Your task to perform on an android device: turn off notifications in google photos Image 0: 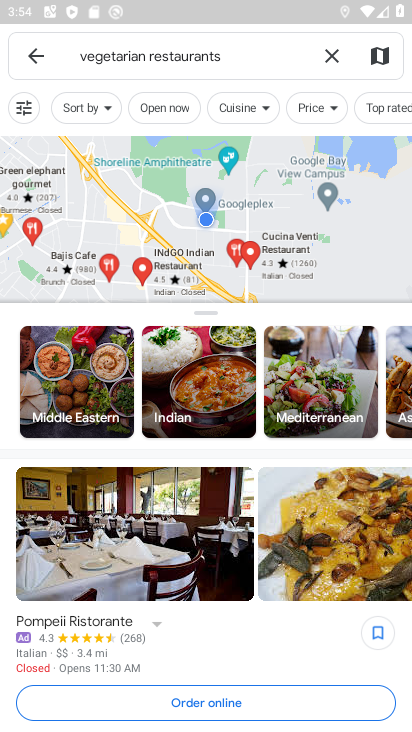
Step 0: press home button
Your task to perform on an android device: turn off notifications in google photos Image 1: 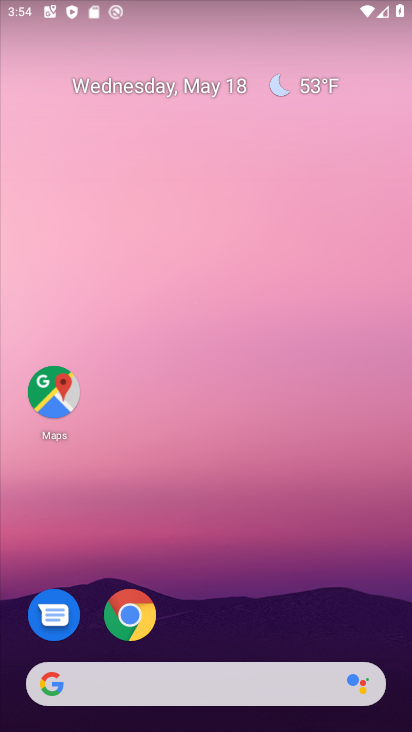
Step 1: drag from (251, 579) to (273, 104)
Your task to perform on an android device: turn off notifications in google photos Image 2: 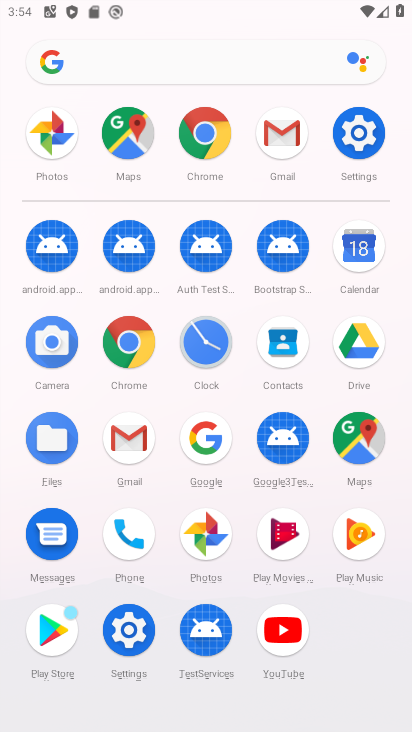
Step 2: click (206, 535)
Your task to perform on an android device: turn off notifications in google photos Image 3: 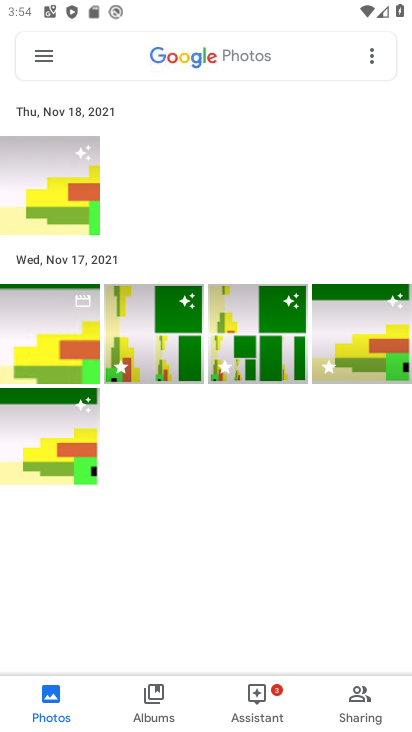
Step 3: click (41, 57)
Your task to perform on an android device: turn off notifications in google photos Image 4: 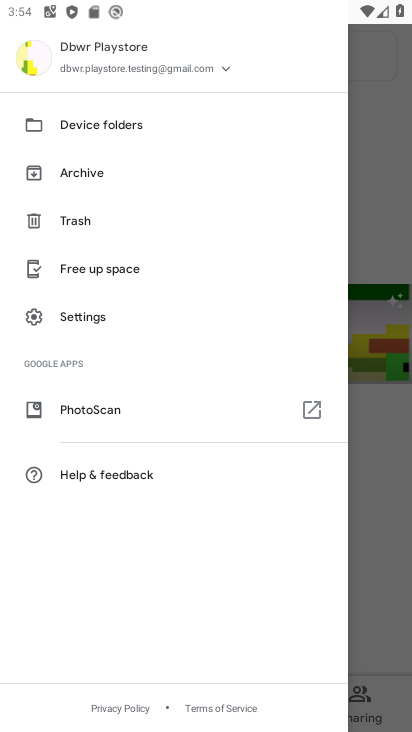
Step 4: click (80, 323)
Your task to perform on an android device: turn off notifications in google photos Image 5: 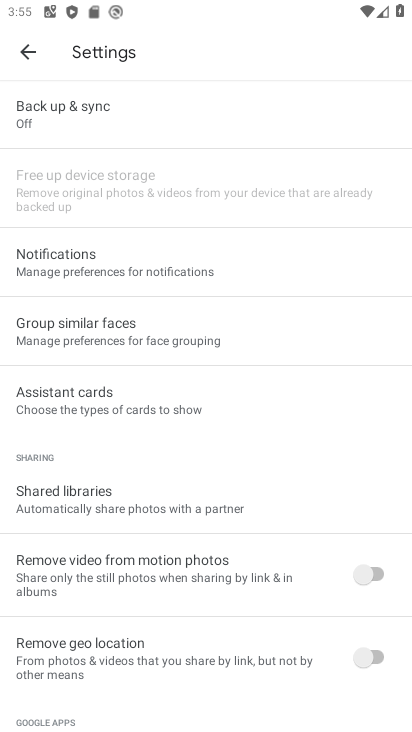
Step 5: click (140, 273)
Your task to perform on an android device: turn off notifications in google photos Image 6: 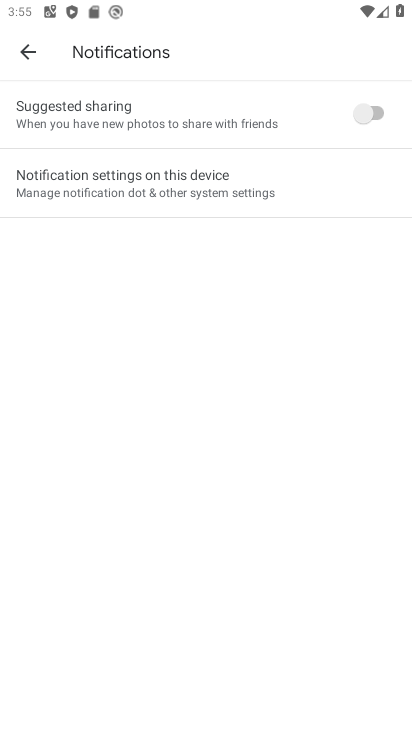
Step 6: click (172, 154)
Your task to perform on an android device: turn off notifications in google photos Image 7: 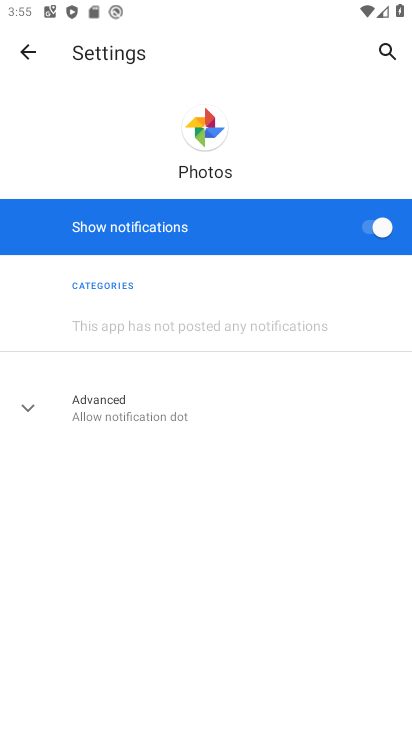
Step 7: click (380, 219)
Your task to perform on an android device: turn off notifications in google photos Image 8: 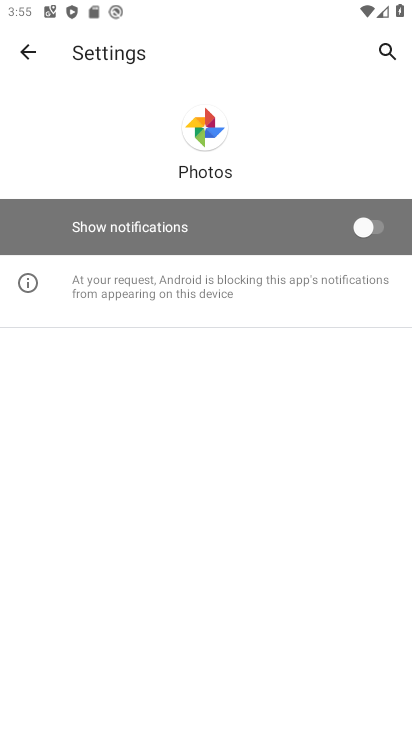
Step 8: task complete